Your task to perform on an android device: Open Maps and search for coffee Image 0: 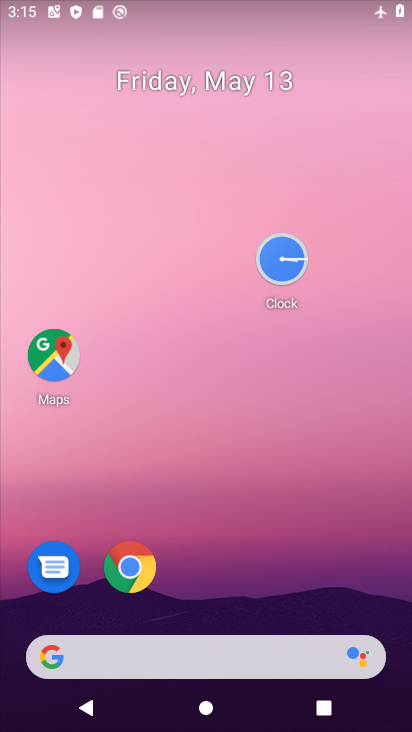
Step 0: click (59, 376)
Your task to perform on an android device: Open Maps and search for coffee Image 1: 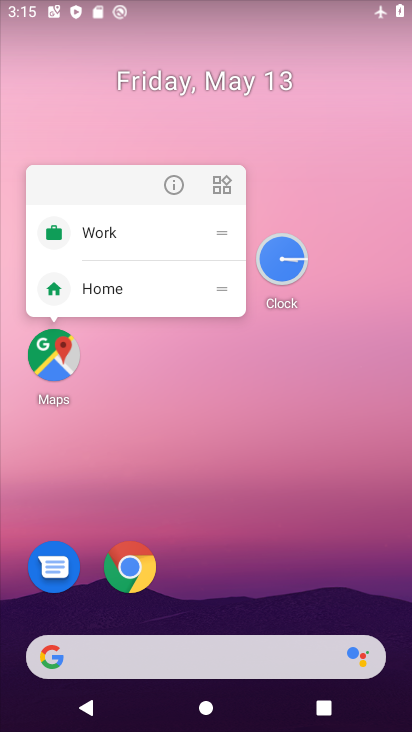
Step 1: click (59, 376)
Your task to perform on an android device: Open Maps and search for coffee Image 2: 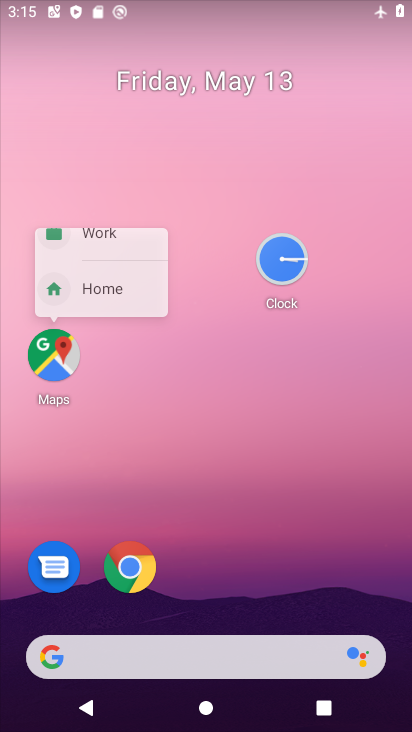
Step 2: click (59, 376)
Your task to perform on an android device: Open Maps and search for coffee Image 3: 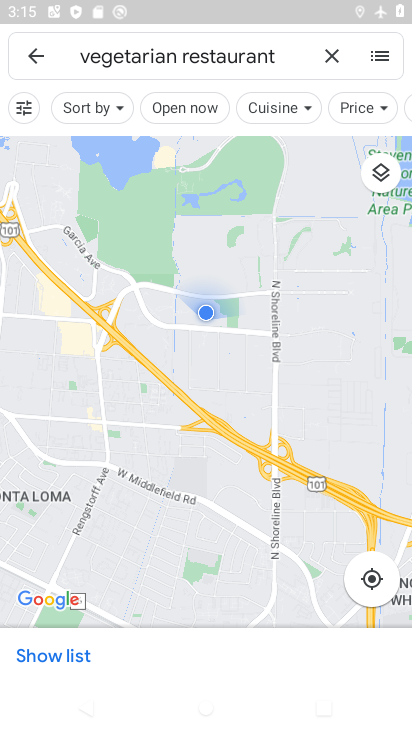
Step 3: click (342, 60)
Your task to perform on an android device: Open Maps and search for coffee Image 4: 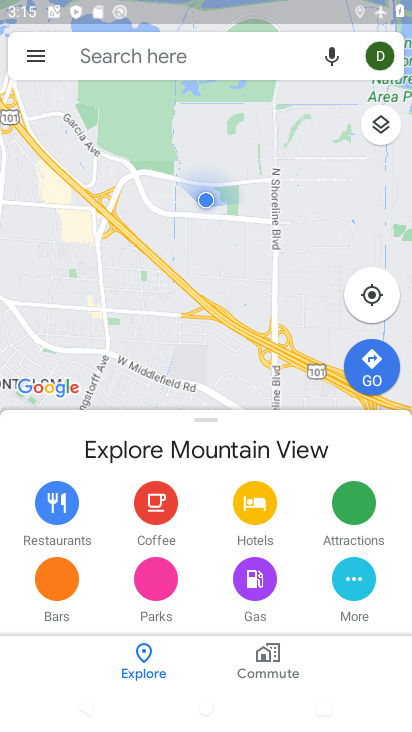
Step 4: click (309, 56)
Your task to perform on an android device: Open Maps and search for coffee Image 5: 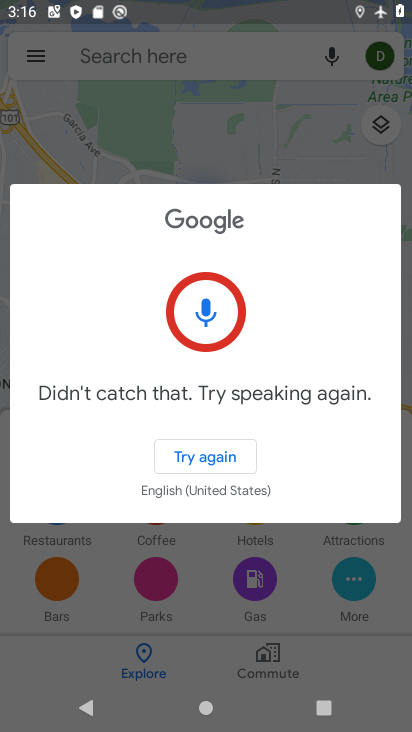
Step 5: type "coffee"
Your task to perform on an android device: Open Maps and search for coffee Image 6: 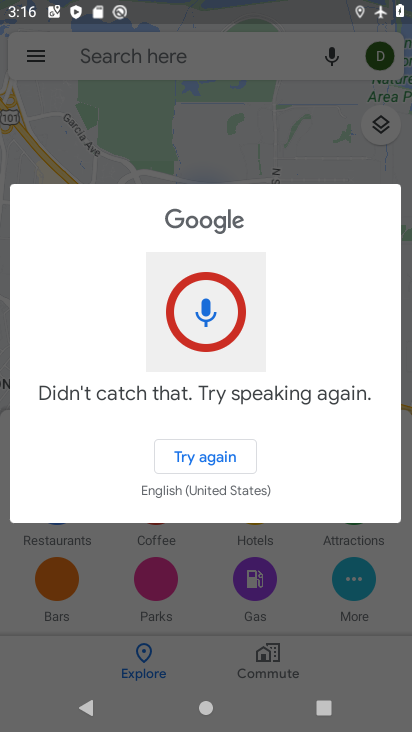
Step 6: click (218, 554)
Your task to perform on an android device: Open Maps and search for coffee Image 7: 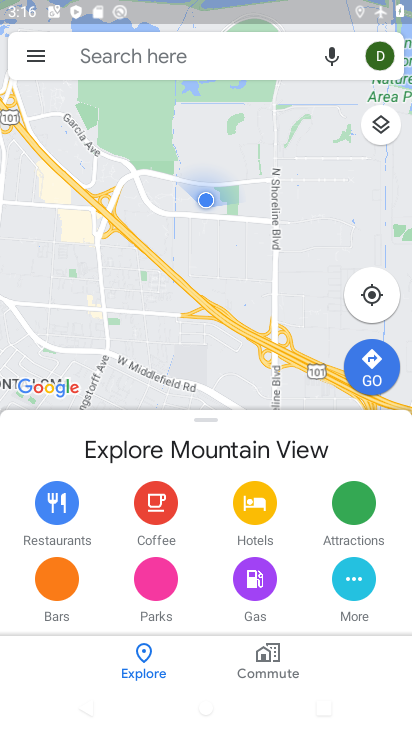
Step 7: click (289, 63)
Your task to perform on an android device: Open Maps and search for coffee Image 8: 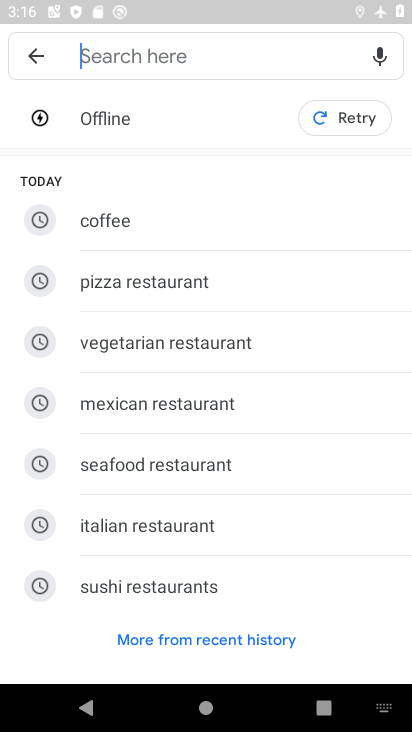
Step 8: click (156, 229)
Your task to perform on an android device: Open Maps and search for coffee Image 9: 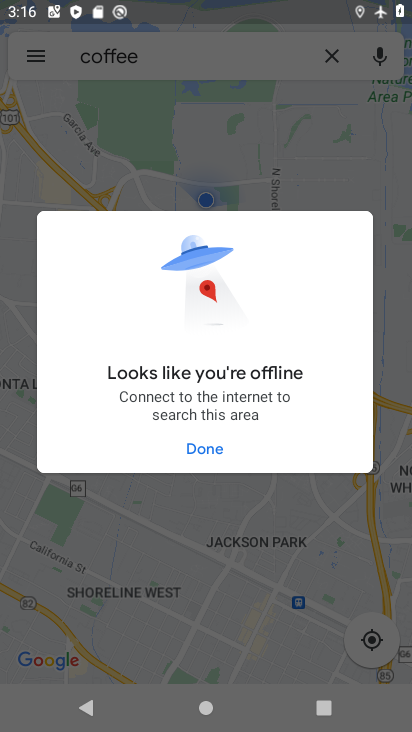
Step 9: task complete